Your task to perform on an android device: View the shopping cart on target.com. Add bose soundlink to the cart on target.com Image 0: 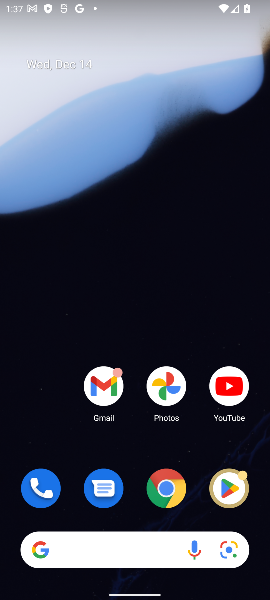
Step 0: drag from (133, 538) to (233, 168)
Your task to perform on an android device: View the shopping cart on target.com. Add bose soundlink to the cart on target.com Image 1: 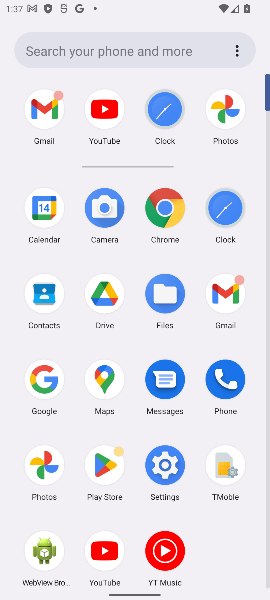
Step 1: click (35, 373)
Your task to perform on an android device: View the shopping cart on target.com. Add bose soundlink to the cart on target.com Image 2: 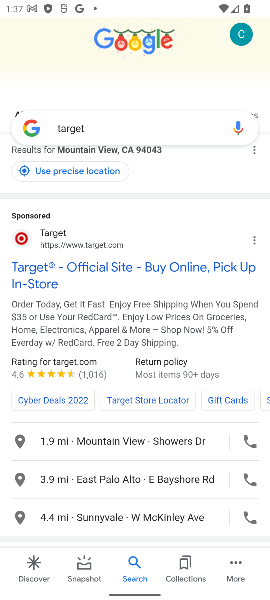
Step 2: click (80, 273)
Your task to perform on an android device: View the shopping cart on target.com. Add bose soundlink to the cart on target.com Image 3: 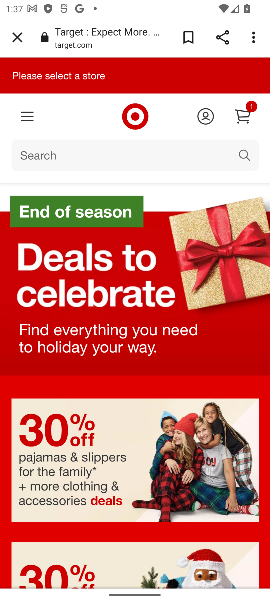
Step 3: click (239, 116)
Your task to perform on an android device: View the shopping cart on target.com. Add bose soundlink to the cart on target.com Image 4: 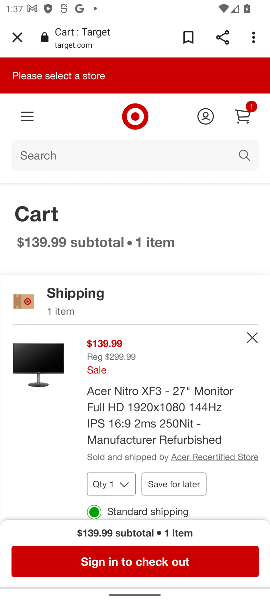
Step 4: click (135, 161)
Your task to perform on an android device: View the shopping cart on target.com. Add bose soundlink to the cart on target.com Image 5: 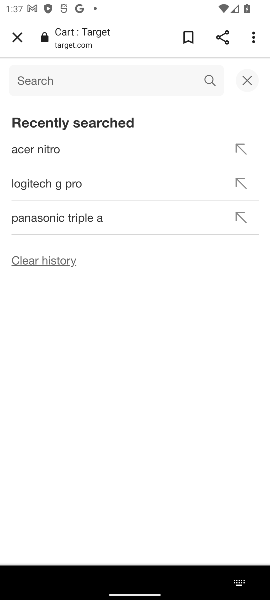
Step 5: type "bose soundlink"
Your task to perform on an android device: View the shopping cart on target.com. Add bose soundlink to the cart on target.com Image 6: 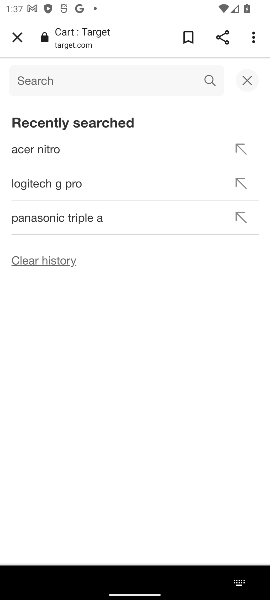
Step 6: click (206, 82)
Your task to perform on an android device: View the shopping cart on target.com. Add bose soundlink to the cart on target.com Image 7: 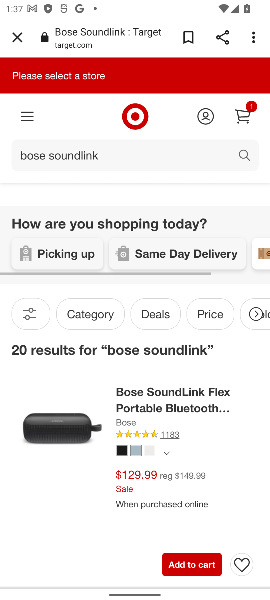
Step 7: click (193, 565)
Your task to perform on an android device: View the shopping cart on target.com. Add bose soundlink to the cart on target.com Image 8: 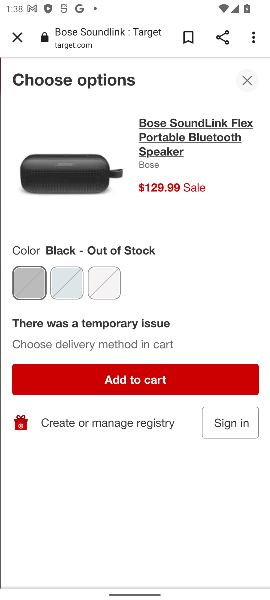
Step 8: click (94, 375)
Your task to perform on an android device: View the shopping cart on target.com. Add bose soundlink to the cart on target.com Image 9: 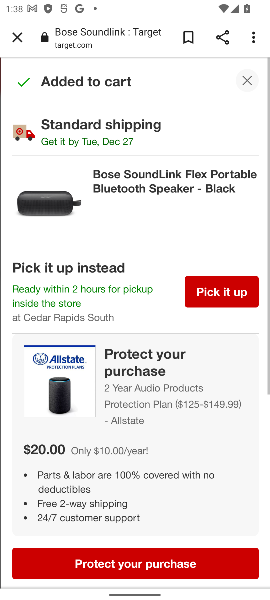
Step 9: click (246, 78)
Your task to perform on an android device: View the shopping cart on target.com. Add bose soundlink to the cart on target.com Image 10: 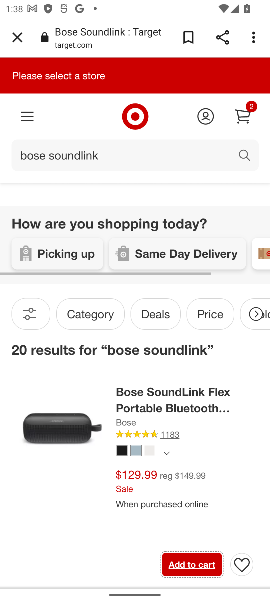
Step 10: click (248, 105)
Your task to perform on an android device: View the shopping cart on target.com. Add bose soundlink to the cart on target.com Image 11: 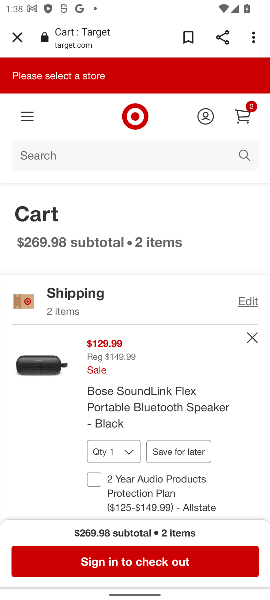
Step 11: click (133, 562)
Your task to perform on an android device: View the shopping cart on target.com. Add bose soundlink to the cart on target.com Image 12: 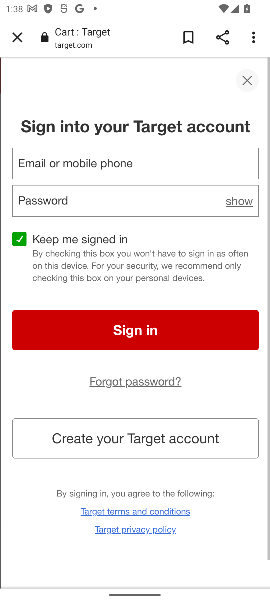
Step 12: task complete